Your task to perform on an android device: Go to Maps Image 0: 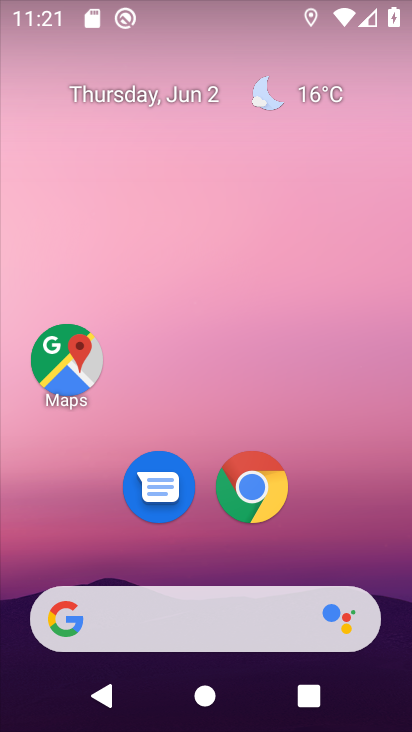
Step 0: click (65, 361)
Your task to perform on an android device: Go to Maps Image 1: 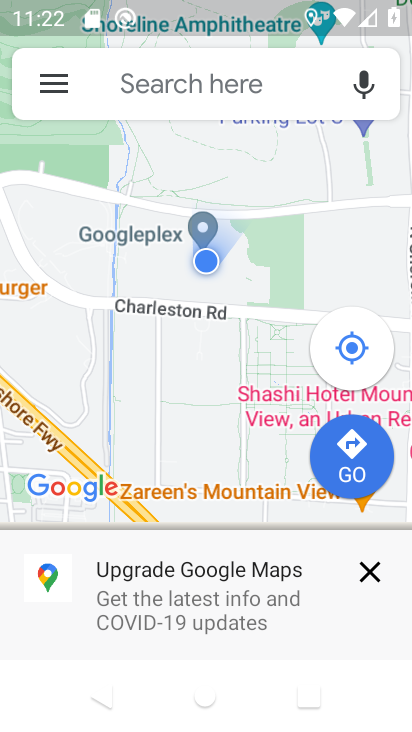
Step 1: click (374, 575)
Your task to perform on an android device: Go to Maps Image 2: 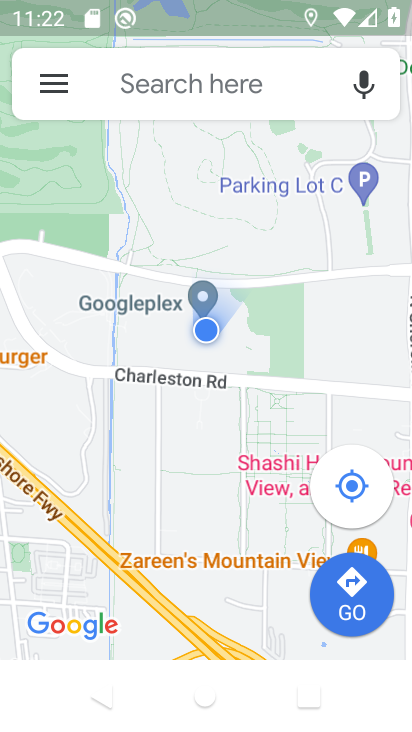
Step 2: task complete